Your task to perform on an android device: search for starred emails in the gmail app Image 0: 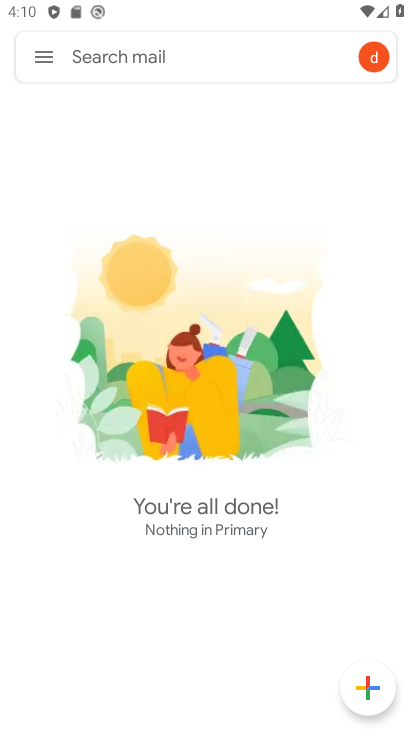
Step 0: press back button
Your task to perform on an android device: search for starred emails in the gmail app Image 1: 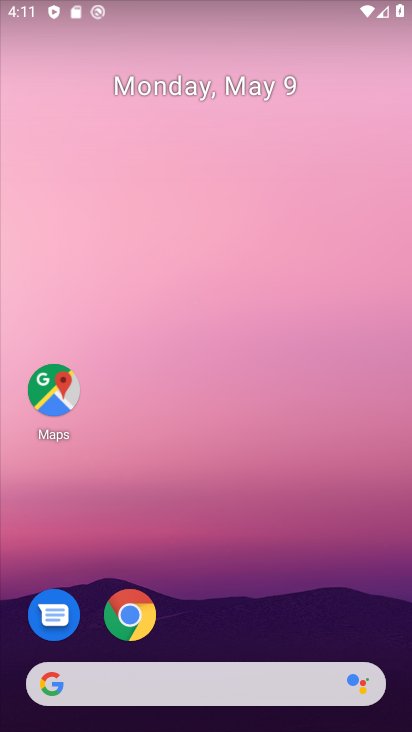
Step 1: drag from (227, 666) to (336, 71)
Your task to perform on an android device: search for starred emails in the gmail app Image 2: 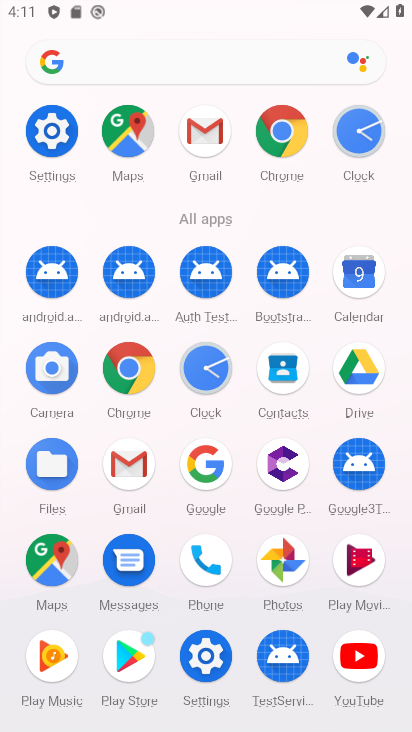
Step 2: click (145, 475)
Your task to perform on an android device: search for starred emails in the gmail app Image 3: 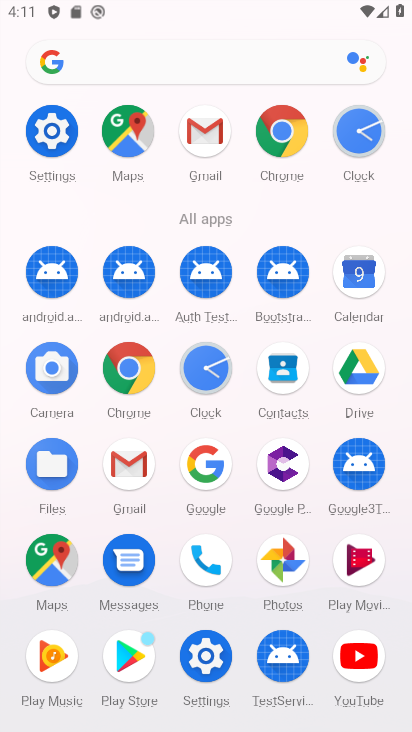
Step 3: click (145, 475)
Your task to perform on an android device: search for starred emails in the gmail app Image 4: 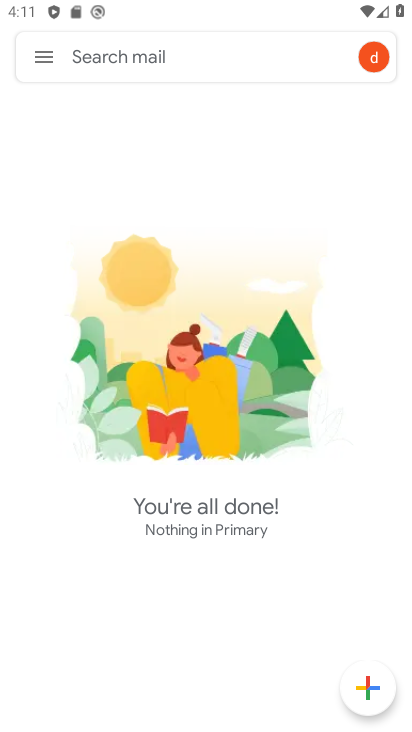
Step 4: click (44, 63)
Your task to perform on an android device: search for starred emails in the gmail app Image 5: 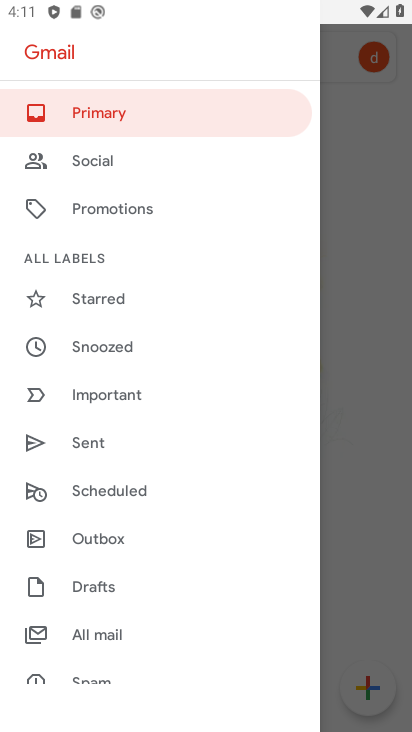
Step 5: click (179, 304)
Your task to perform on an android device: search for starred emails in the gmail app Image 6: 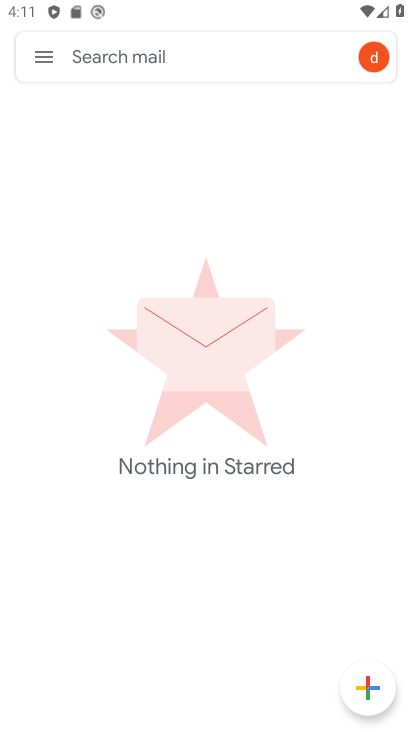
Step 6: task complete